Your task to perform on an android device: Go to display settings Image 0: 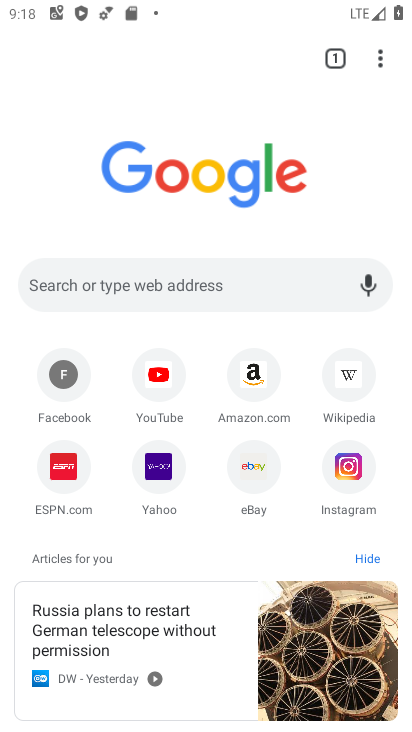
Step 0: press home button
Your task to perform on an android device: Go to display settings Image 1: 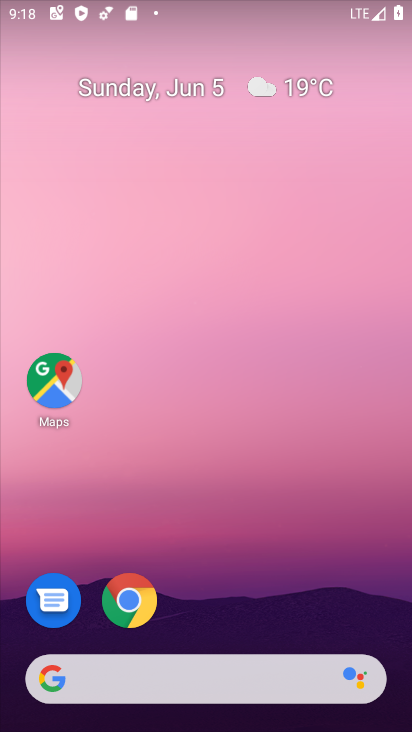
Step 1: drag from (248, 618) to (204, 267)
Your task to perform on an android device: Go to display settings Image 2: 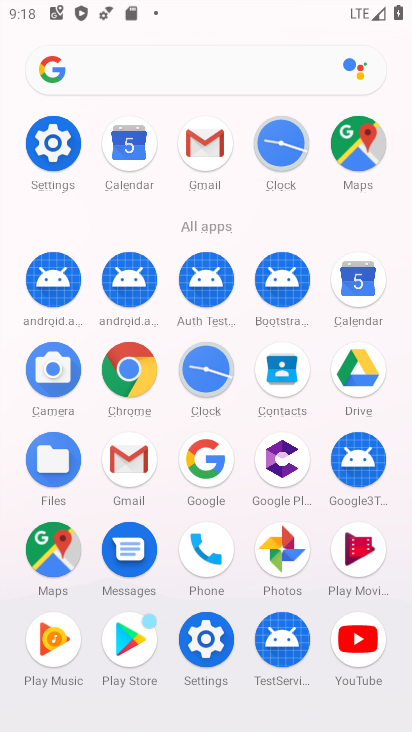
Step 2: click (76, 161)
Your task to perform on an android device: Go to display settings Image 3: 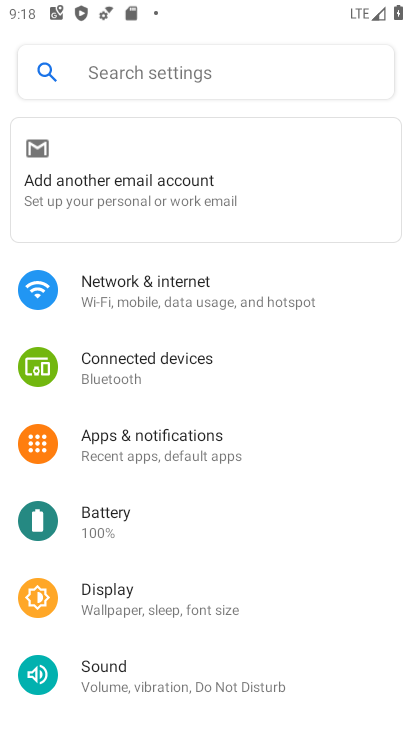
Step 3: click (249, 590)
Your task to perform on an android device: Go to display settings Image 4: 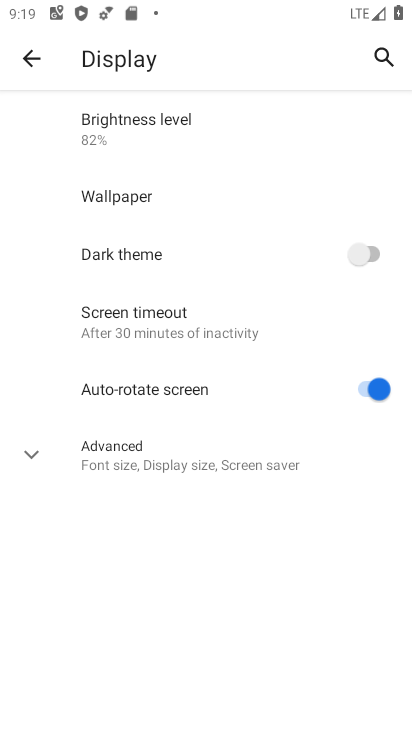
Step 4: click (249, 465)
Your task to perform on an android device: Go to display settings Image 5: 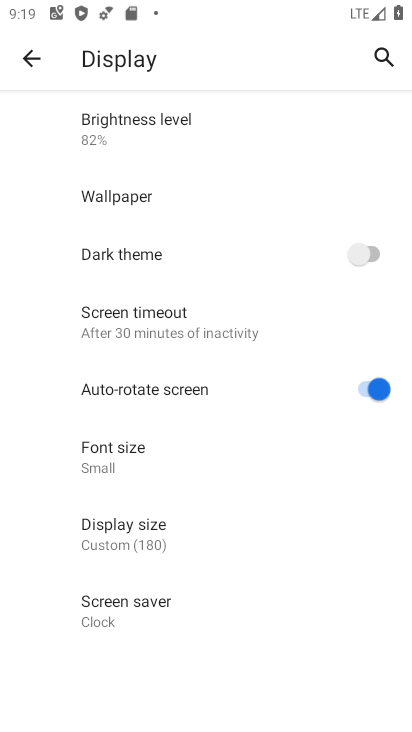
Step 5: task complete